Your task to perform on an android device: allow notifications from all sites in the chrome app Image 0: 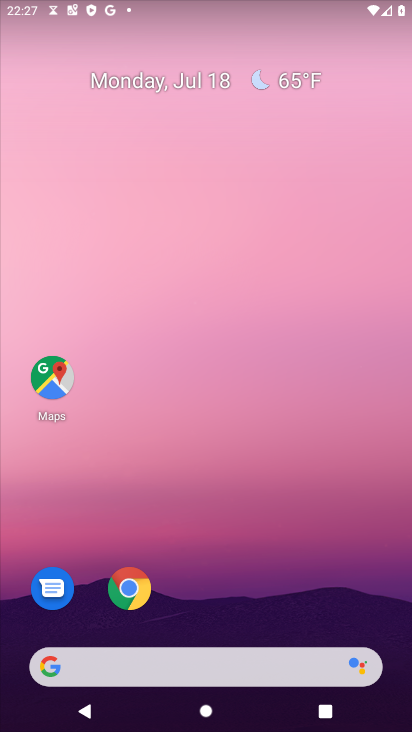
Step 0: click (129, 590)
Your task to perform on an android device: allow notifications from all sites in the chrome app Image 1: 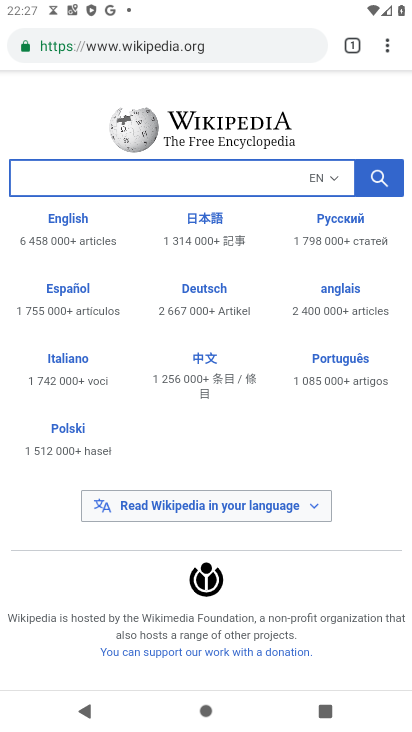
Step 1: click (389, 45)
Your task to perform on an android device: allow notifications from all sites in the chrome app Image 2: 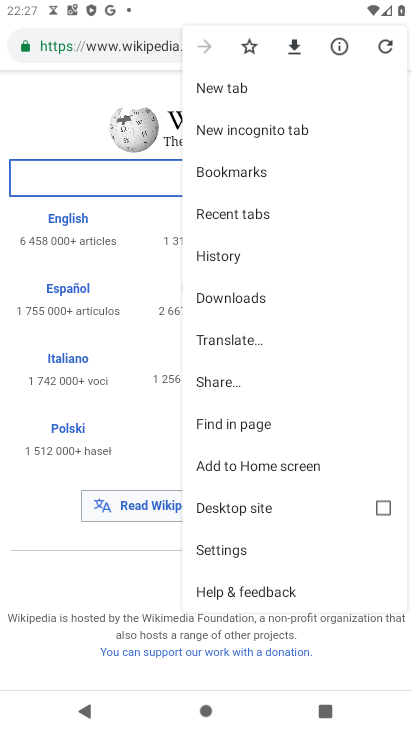
Step 2: click (233, 553)
Your task to perform on an android device: allow notifications from all sites in the chrome app Image 3: 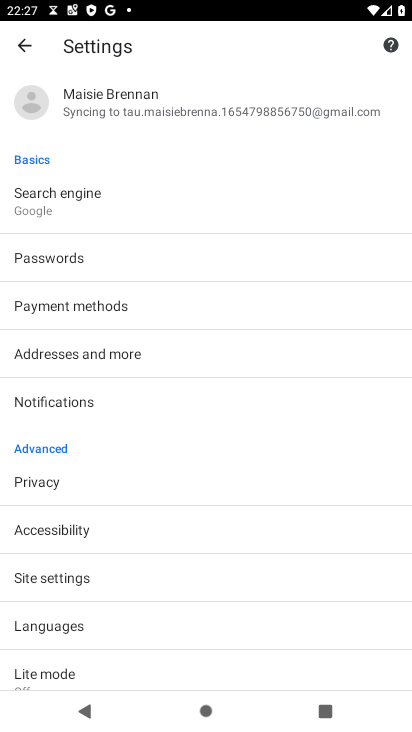
Step 3: click (80, 574)
Your task to perform on an android device: allow notifications from all sites in the chrome app Image 4: 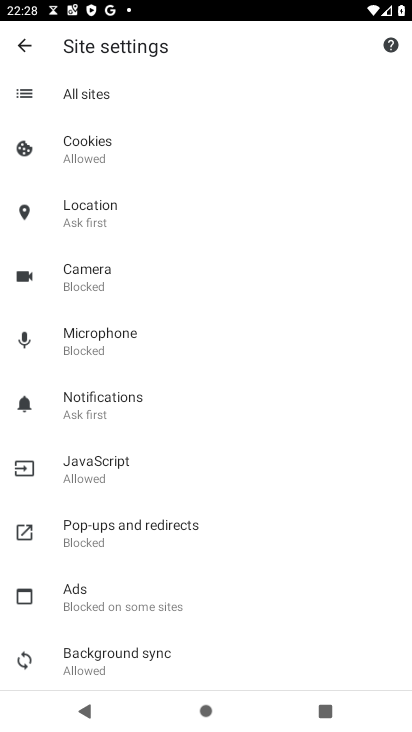
Step 4: click (117, 402)
Your task to perform on an android device: allow notifications from all sites in the chrome app Image 5: 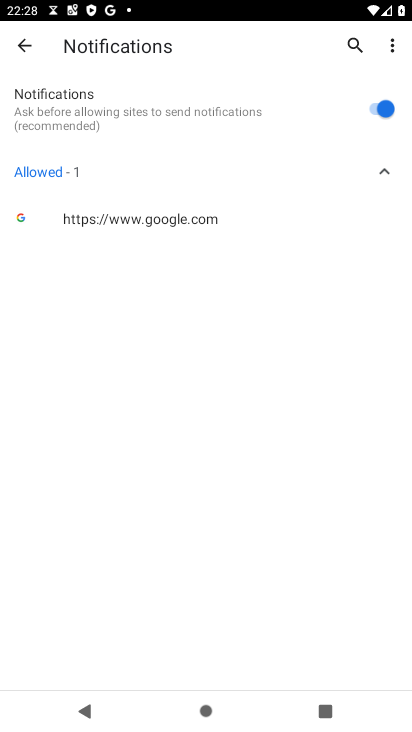
Step 5: task complete